Your task to perform on an android device: show emergency info Image 0: 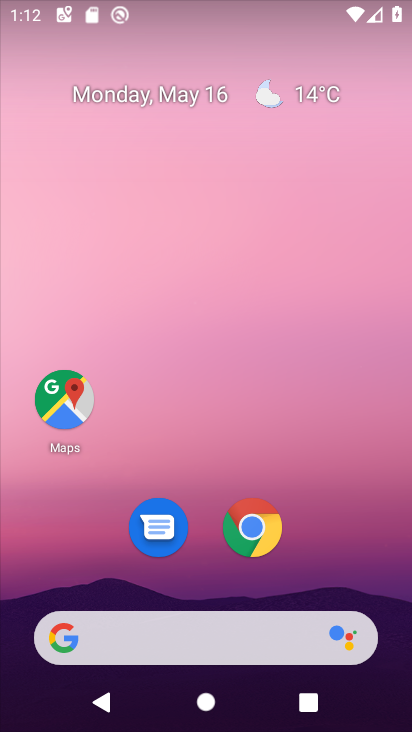
Step 0: drag from (199, 560) to (203, 25)
Your task to perform on an android device: show emergency info Image 1: 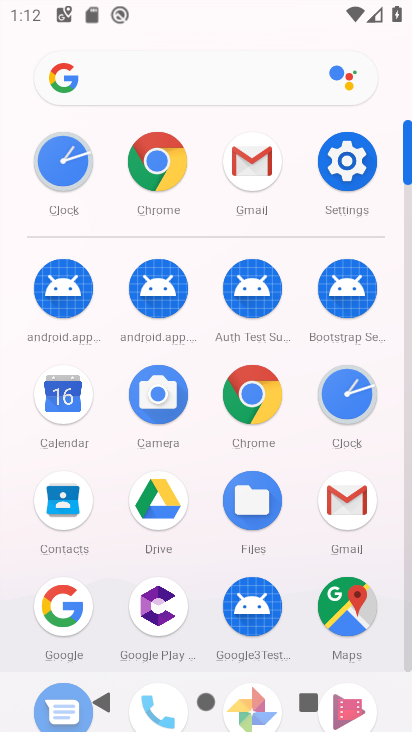
Step 1: click (344, 174)
Your task to perform on an android device: show emergency info Image 2: 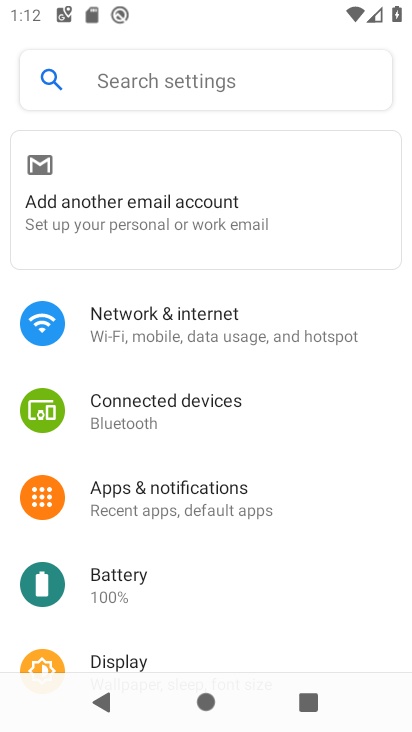
Step 2: drag from (197, 569) to (237, 330)
Your task to perform on an android device: show emergency info Image 3: 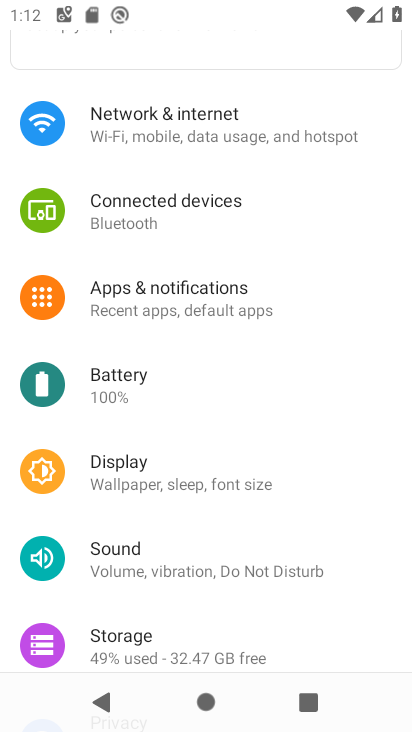
Step 3: drag from (192, 560) to (216, 0)
Your task to perform on an android device: show emergency info Image 4: 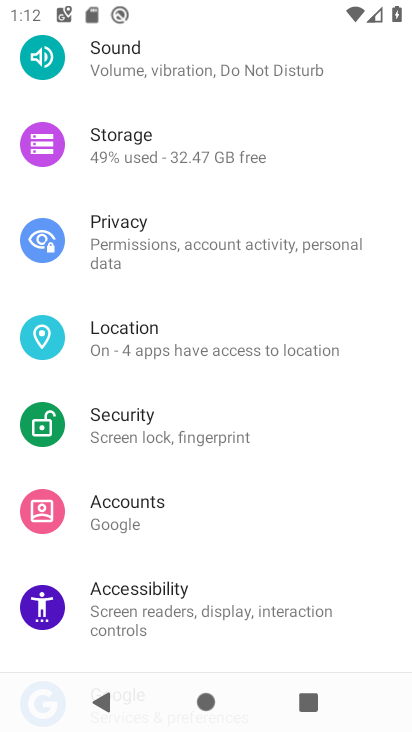
Step 4: drag from (184, 615) to (226, 234)
Your task to perform on an android device: show emergency info Image 5: 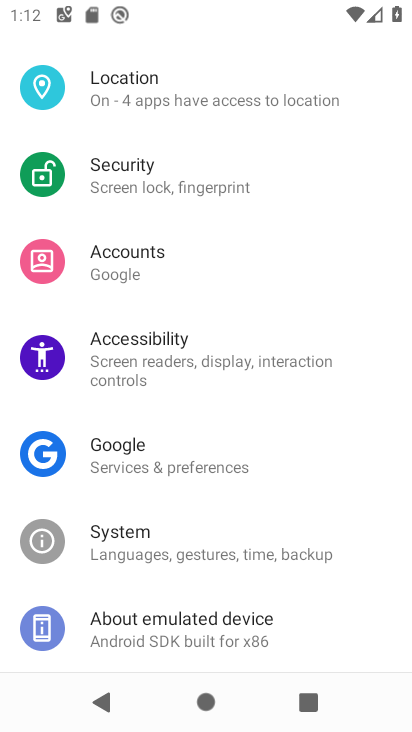
Step 5: click (187, 643)
Your task to perform on an android device: show emergency info Image 6: 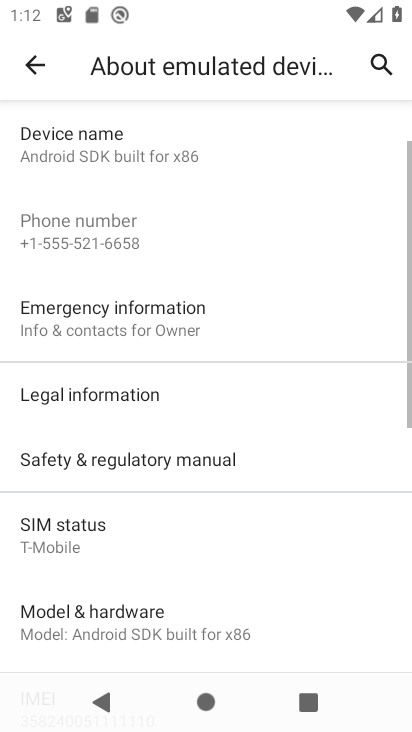
Step 6: click (163, 324)
Your task to perform on an android device: show emergency info Image 7: 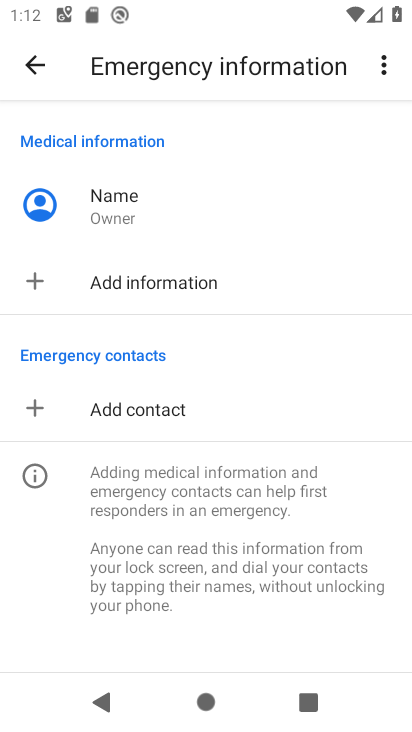
Step 7: task complete